Your task to perform on an android device: turn off javascript in the chrome app Image 0: 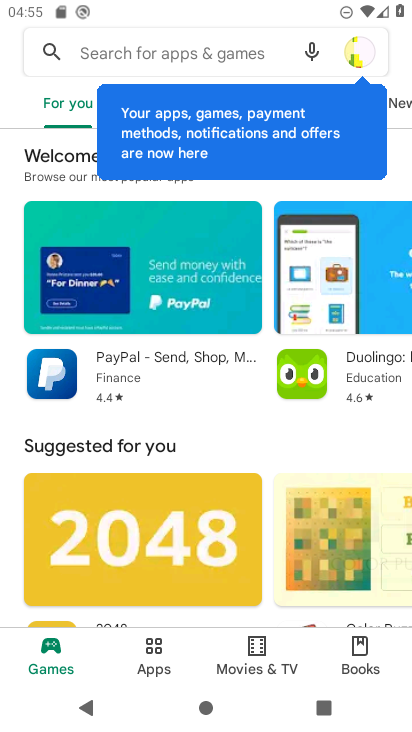
Step 0: press home button
Your task to perform on an android device: turn off javascript in the chrome app Image 1: 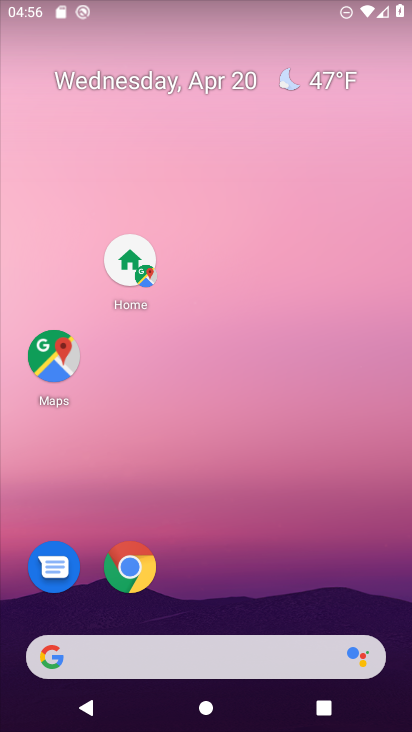
Step 1: click (124, 569)
Your task to perform on an android device: turn off javascript in the chrome app Image 2: 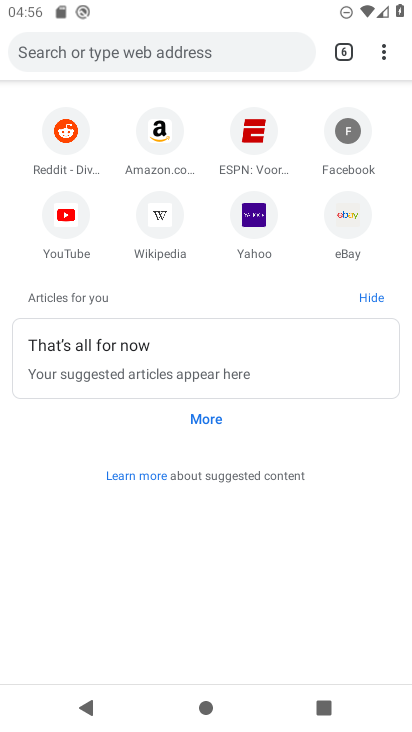
Step 2: click (374, 55)
Your task to perform on an android device: turn off javascript in the chrome app Image 3: 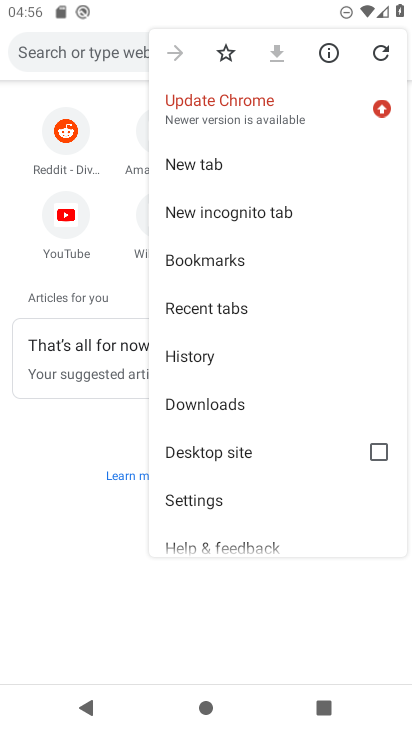
Step 3: click (197, 509)
Your task to perform on an android device: turn off javascript in the chrome app Image 4: 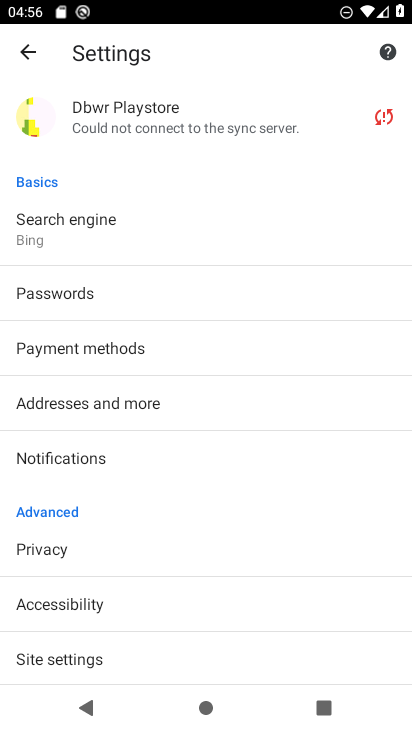
Step 4: click (85, 670)
Your task to perform on an android device: turn off javascript in the chrome app Image 5: 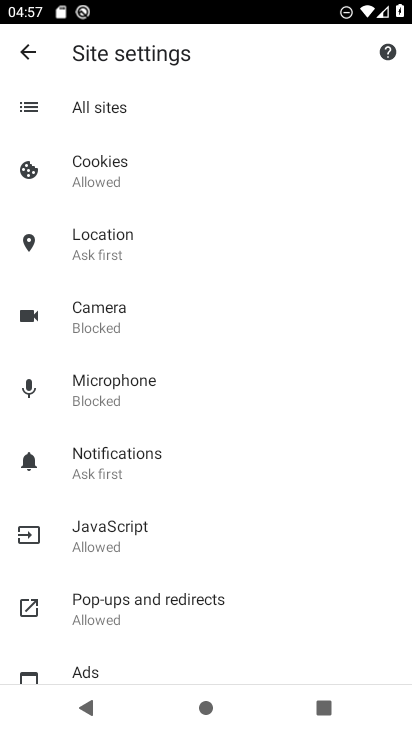
Step 5: click (146, 528)
Your task to perform on an android device: turn off javascript in the chrome app Image 6: 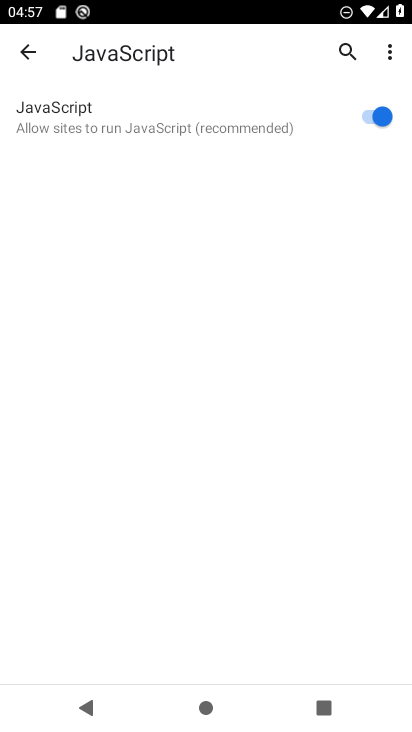
Step 6: click (377, 127)
Your task to perform on an android device: turn off javascript in the chrome app Image 7: 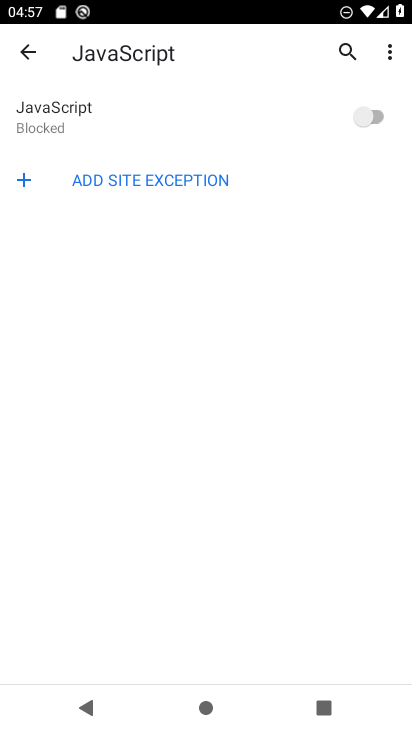
Step 7: task complete